Your task to perform on an android device: What's US dollar exchange rate against the Chinese Yuan? Image 0: 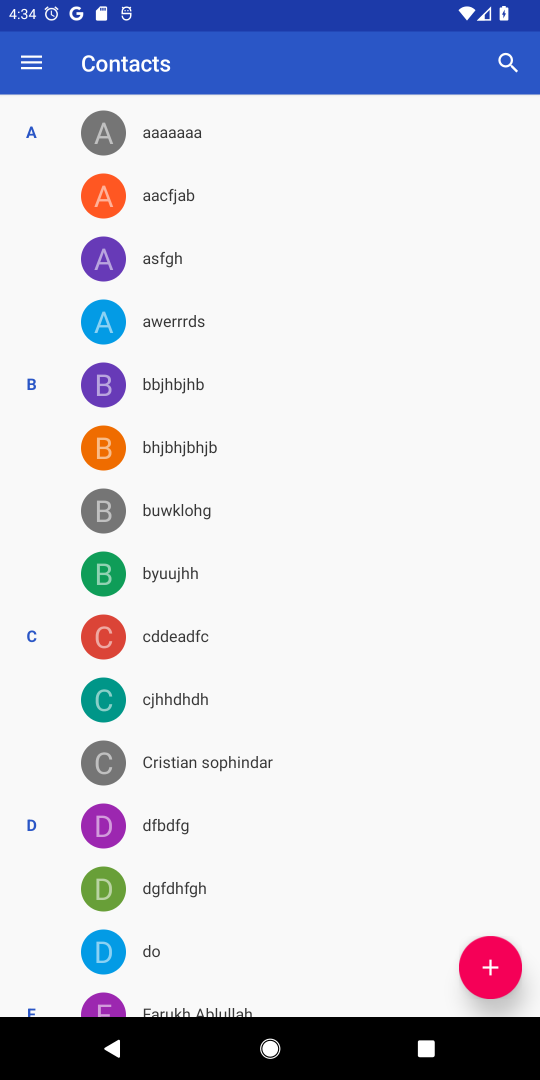
Step 0: press home button
Your task to perform on an android device: What's US dollar exchange rate against the Chinese Yuan? Image 1: 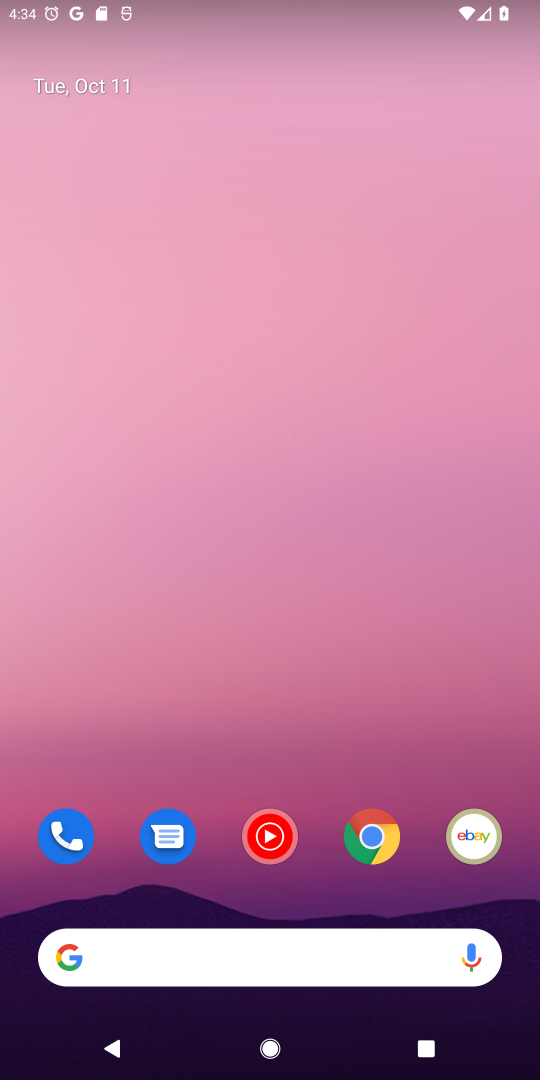
Step 1: click (198, 960)
Your task to perform on an android device: What's US dollar exchange rate against the Chinese Yuan? Image 2: 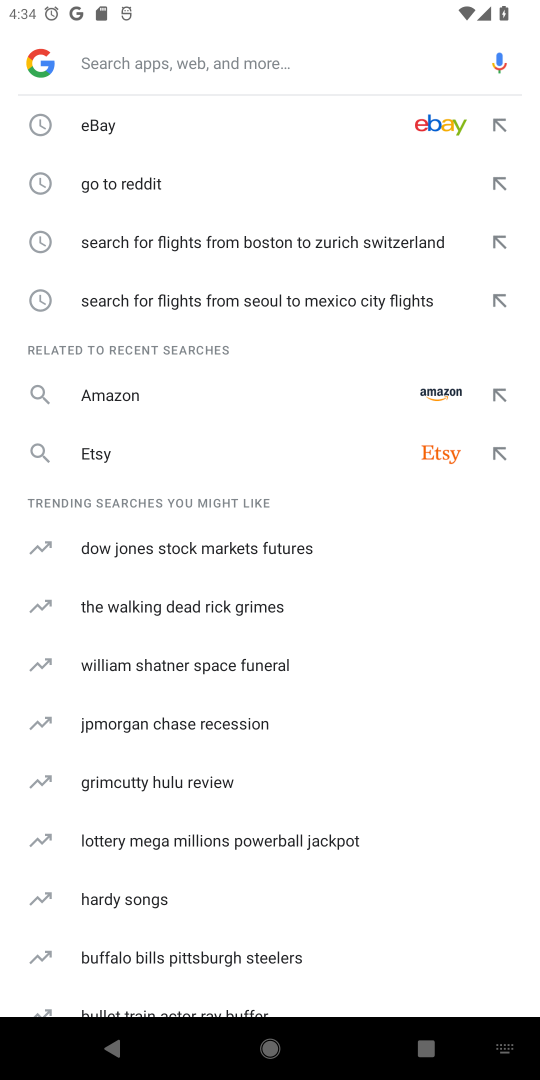
Step 2: type "What's US dollar exchange rate against the Chinese Yuan?"
Your task to perform on an android device: What's US dollar exchange rate against the Chinese Yuan? Image 3: 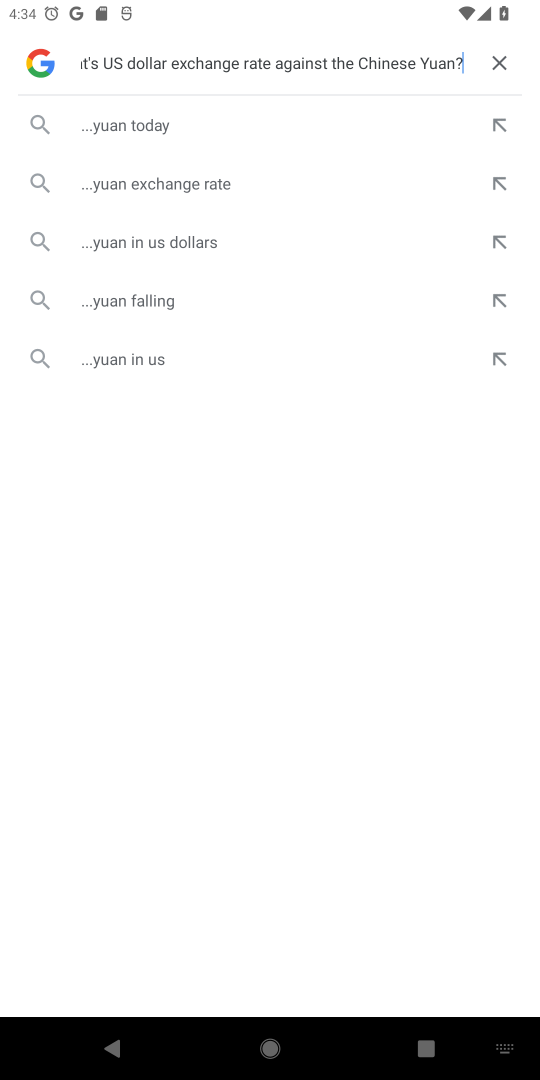
Step 3: click (127, 102)
Your task to perform on an android device: What's US dollar exchange rate against the Chinese Yuan? Image 4: 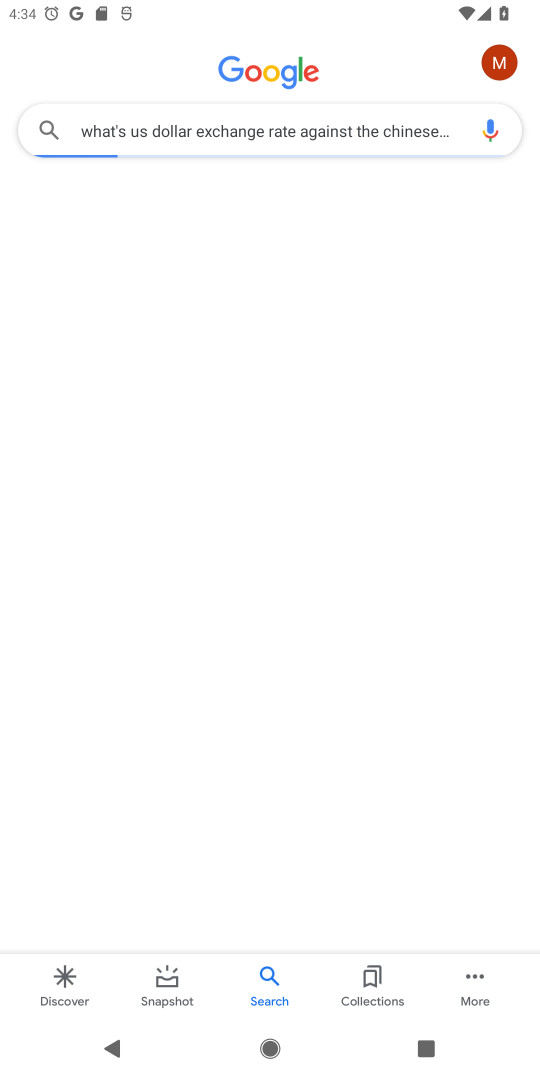
Step 4: task complete